Your task to perform on an android device: turn off sleep mode Image 0: 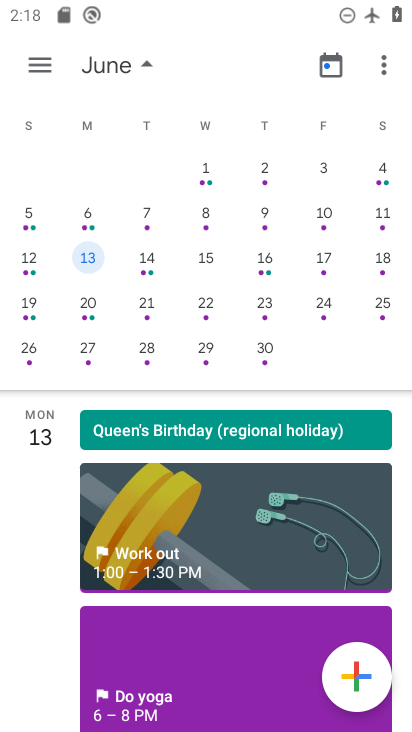
Step 0: press home button
Your task to perform on an android device: turn off sleep mode Image 1: 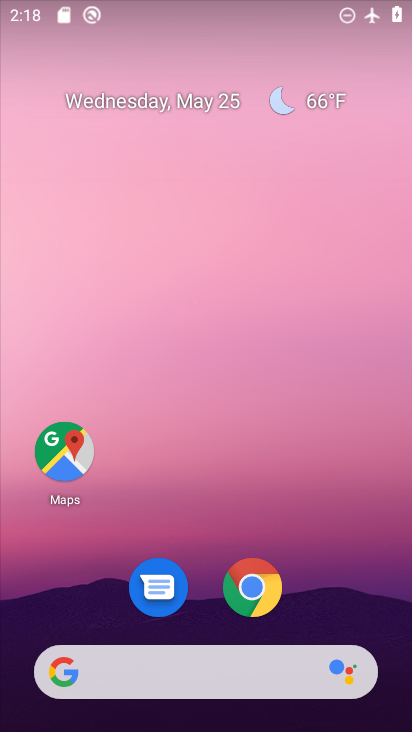
Step 1: drag from (375, 611) to (375, 117)
Your task to perform on an android device: turn off sleep mode Image 2: 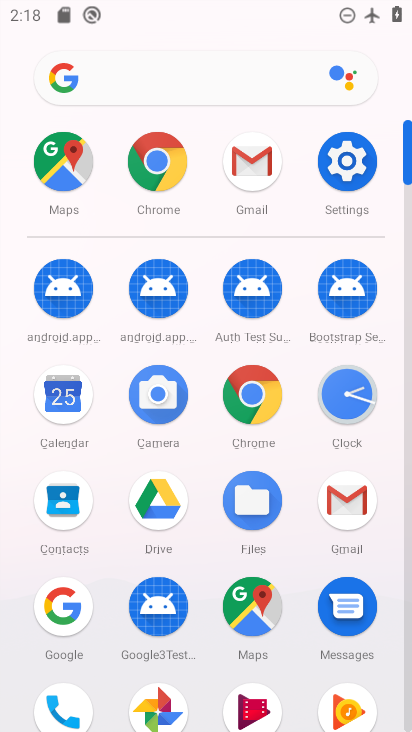
Step 2: drag from (385, 505) to (393, 254)
Your task to perform on an android device: turn off sleep mode Image 3: 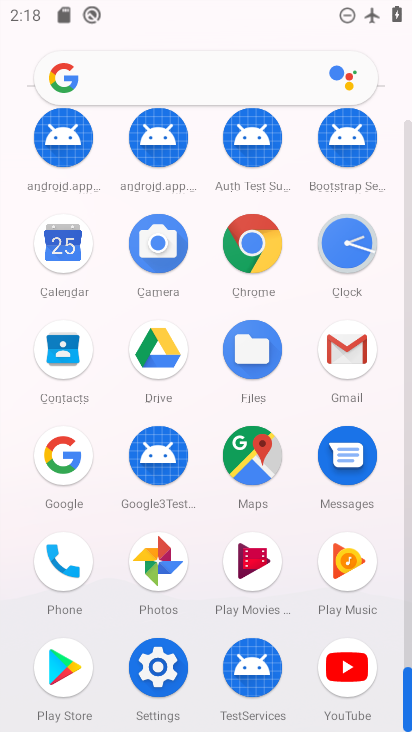
Step 3: click (164, 690)
Your task to perform on an android device: turn off sleep mode Image 4: 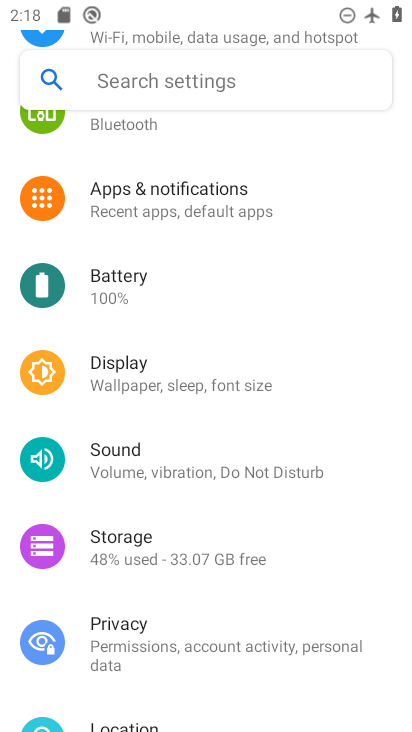
Step 4: drag from (306, 615) to (313, 519)
Your task to perform on an android device: turn off sleep mode Image 5: 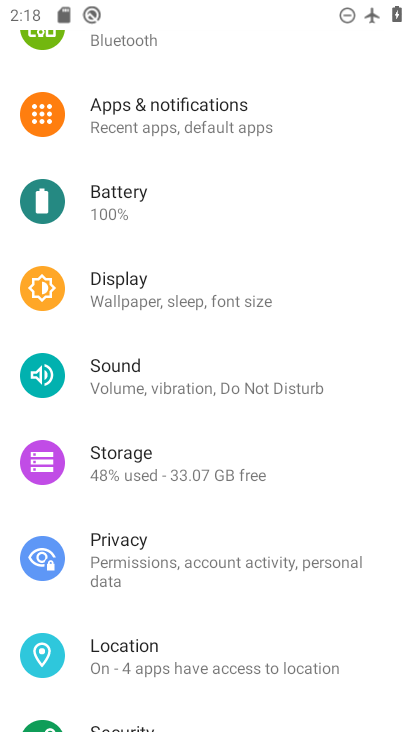
Step 5: drag from (339, 633) to (361, 527)
Your task to perform on an android device: turn off sleep mode Image 6: 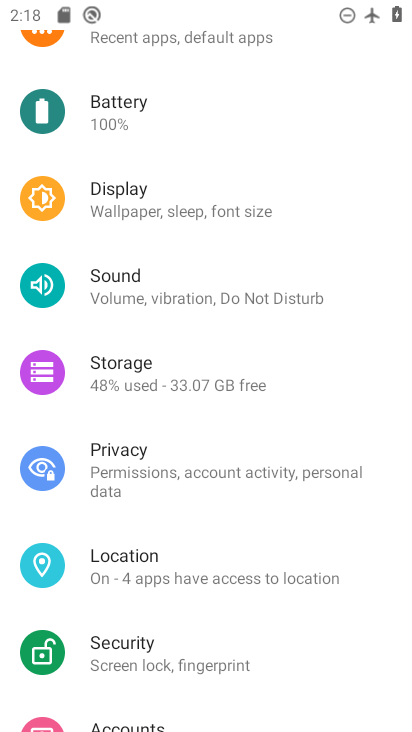
Step 6: drag from (362, 608) to (366, 517)
Your task to perform on an android device: turn off sleep mode Image 7: 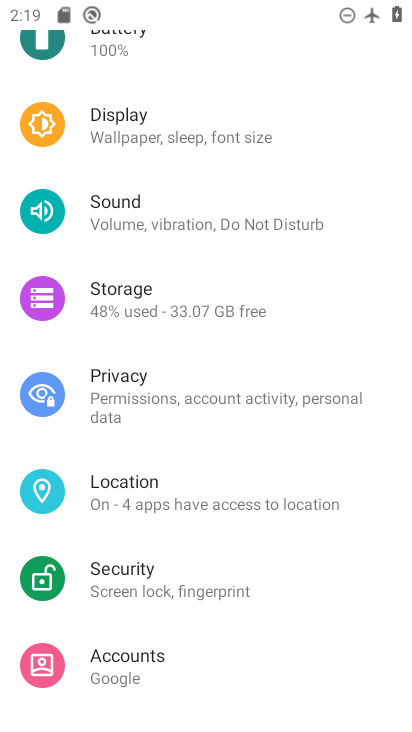
Step 7: drag from (349, 594) to (350, 506)
Your task to perform on an android device: turn off sleep mode Image 8: 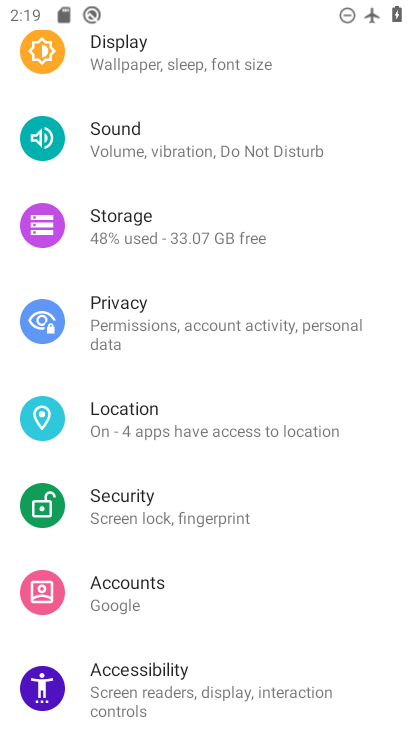
Step 8: drag from (346, 578) to (364, 454)
Your task to perform on an android device: turn off sleep mode Image 9: 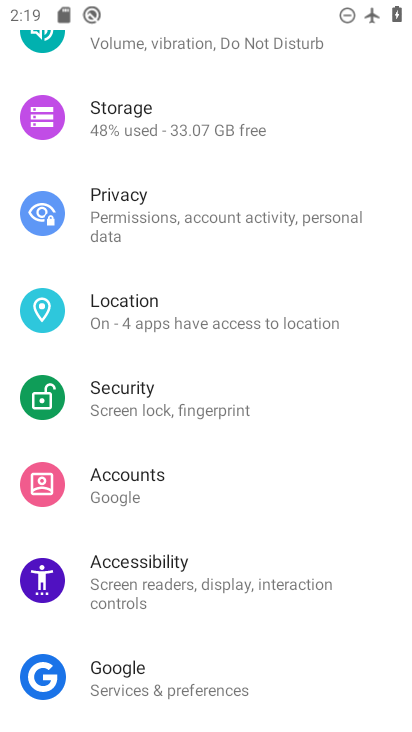
Step 9: drag from (355, 596) to (356, 460)
Your task to perform on an android device: turn off sleep mode Image 10: 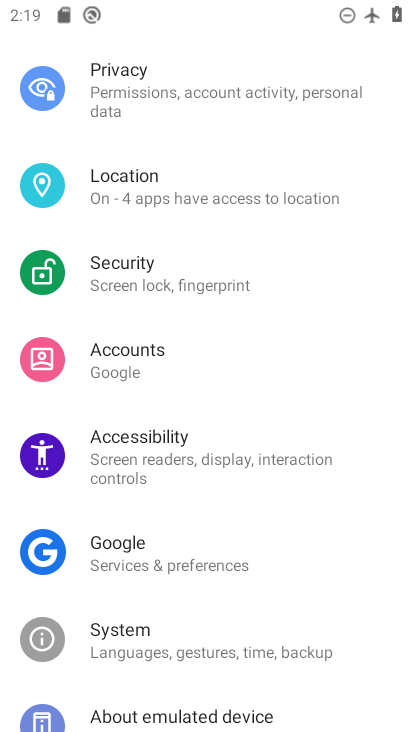
Step 10: drag from (348, 397) to (347, 486)
Your task to perform on an android device: turn off sleep mode Image 11: 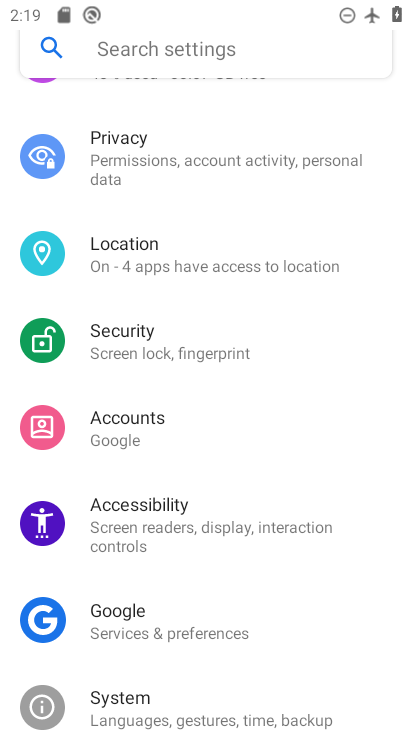
Step 11: drag from (351, 371) to (351, 487)
Your task to perform on an android device: turn off sleep mode Image 12: 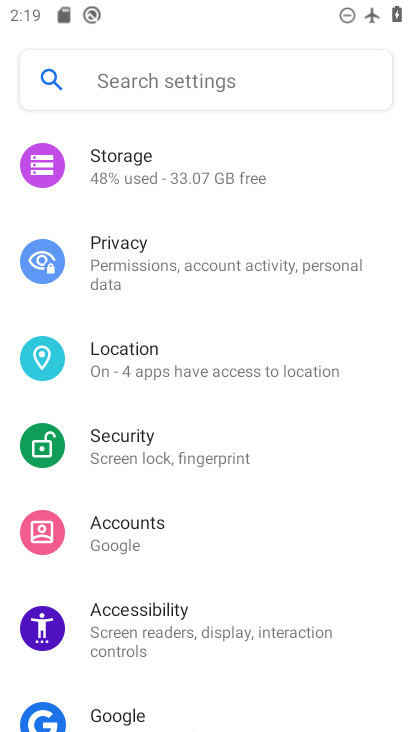
Step 12: drag from (352, 322) to (353, 444)
Your task to perform on an android device: turn off sleep mode Image 13: 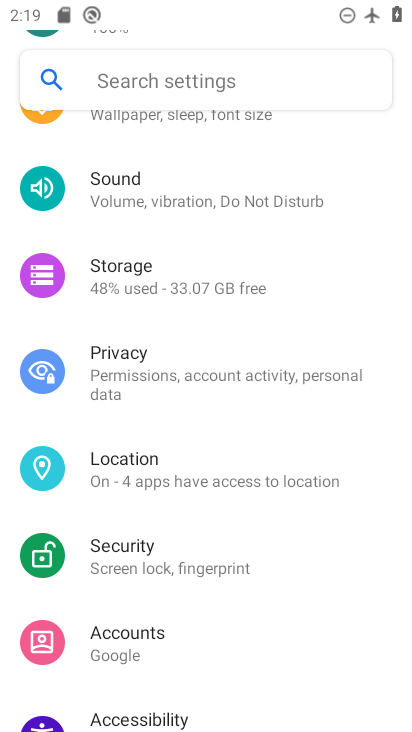
Step 13: drag from (355, 265) to (355, 428)
Your task to perform on an android device: turn off sleep mode Image 14: 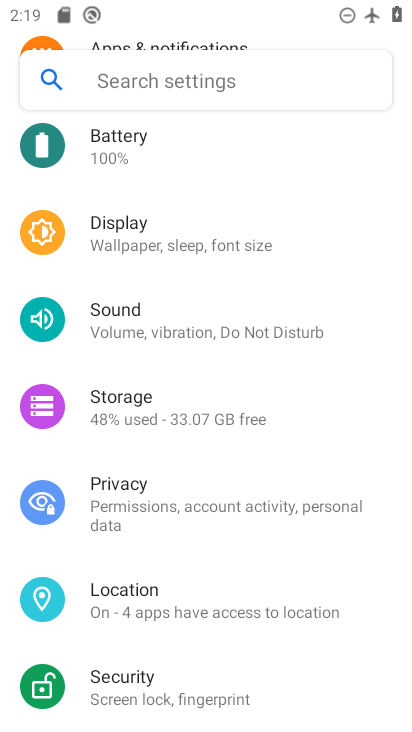
Step 14: drag from (348, 239) to (347, 393)
Your task to perform on an android device: turn off sleep mode Image 15: 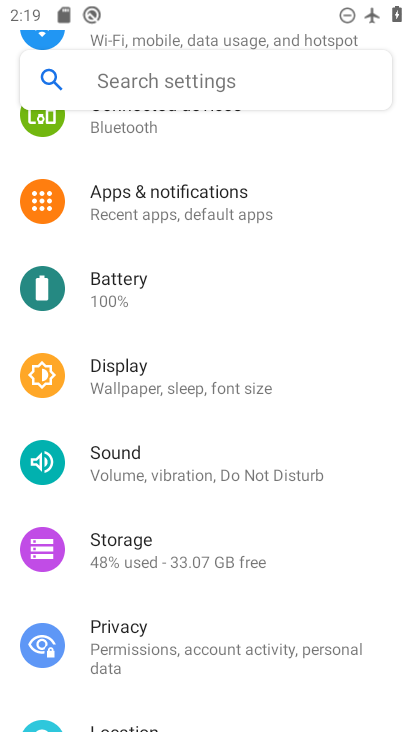
Step 15: drag from (340, 244) to (340, 392)
Your task to perform on an android device: turn off sleep mode Image 16: 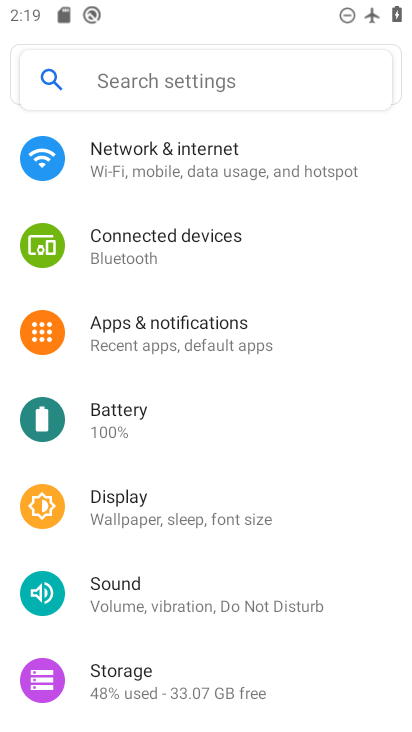
Step 16: drag from (334, 299) to (334, 381)
Your task to perform on an android device: turn off sleep mode Image 17: 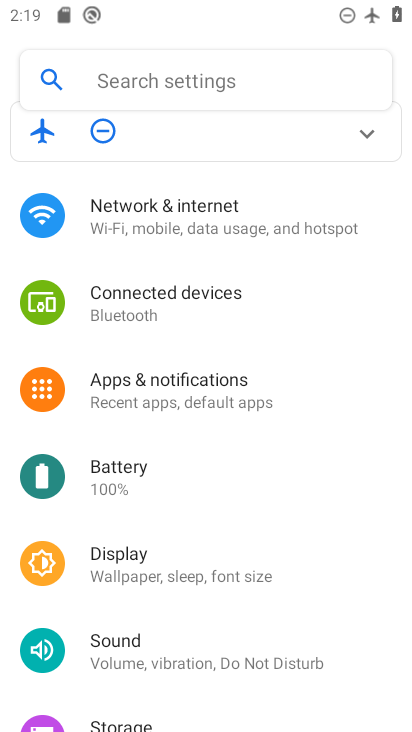
Step 17: drag from (350, 349) to (353, 421)
Your task to perform on an android device: turn off sleep mode Image 18: 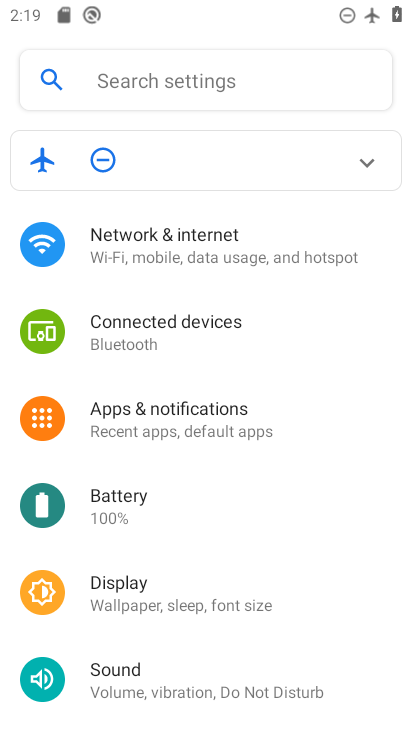
Step 18: drag from (336, 392) to (338, 445)
Your task to perform on an android device: turn off sleep mode Image 19: 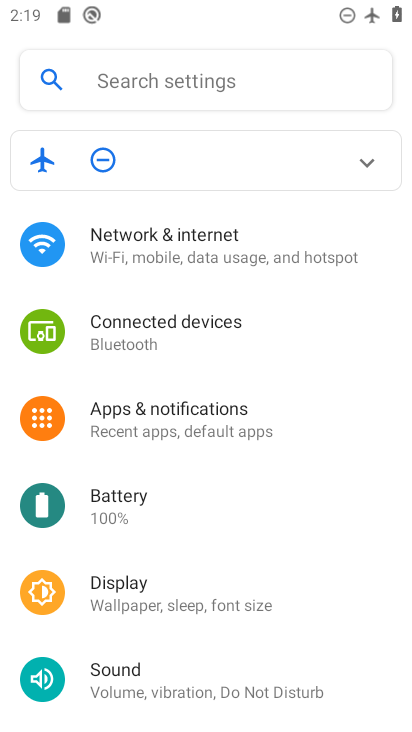
Step 19: drag from (328, 444) to (328, 506)
Your task to perform on an android device: turn off sleep mode Image 20: 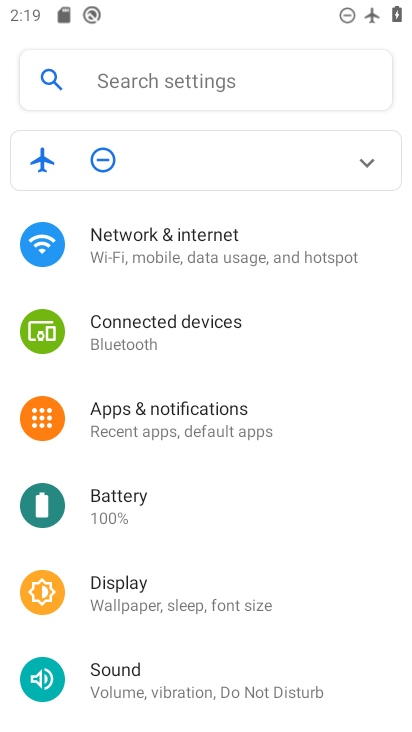
Step 20: drag from (321, 469) to (318, 565)
Your task to perform on an android device: turn off sleep mode Image 21: 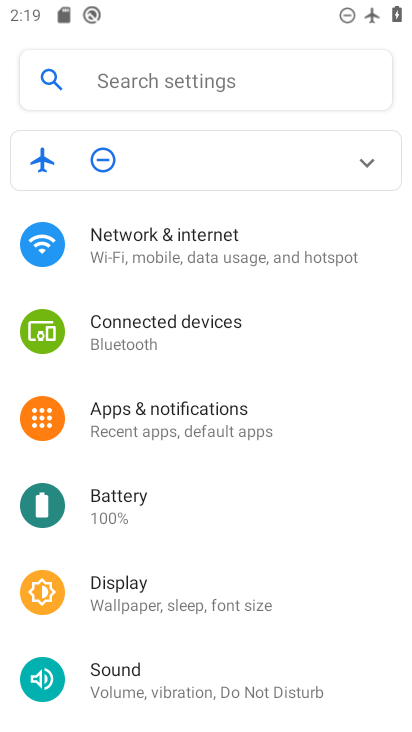
Step 21: click (158, 604)
Your task to perform on an android device: turn off sleep mode Image 22: 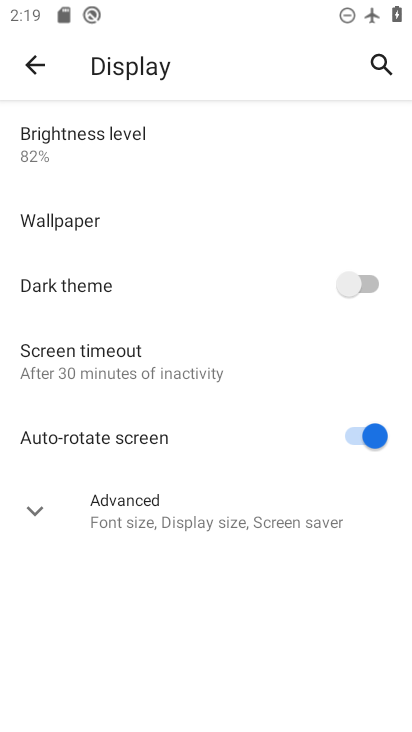
Step 22: task complete